Your task to perform on an android device: Go to Yahoo.com Image 0: 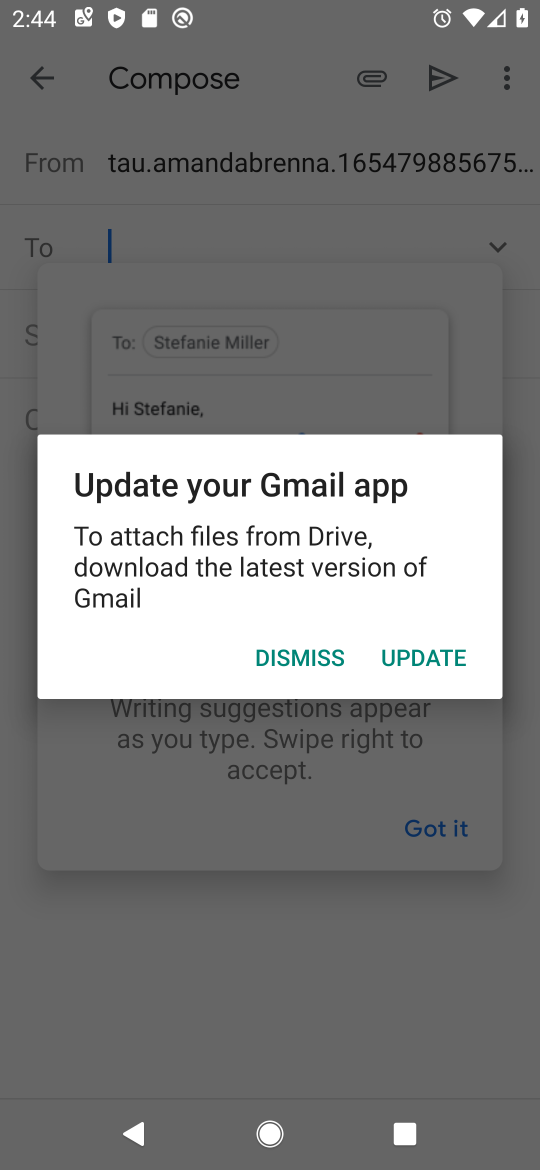
Step 0: press home button
Your task to perform on an android device: Go to Yahoo.com Image 1: 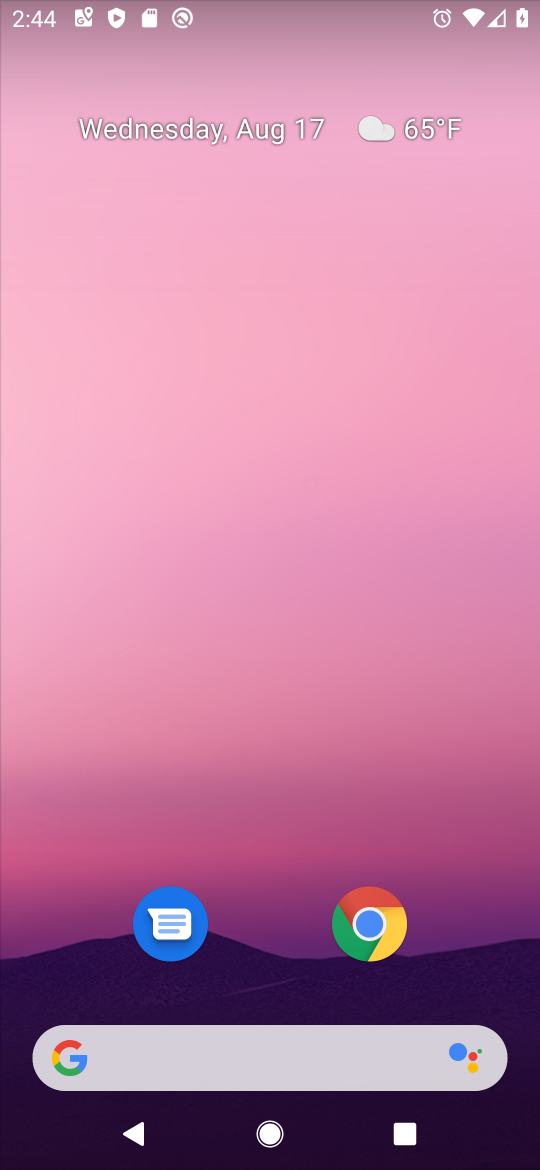
Step 1: click (372, 925)
Your task to perform on an android device: Go to Yahoo.com Image 2: 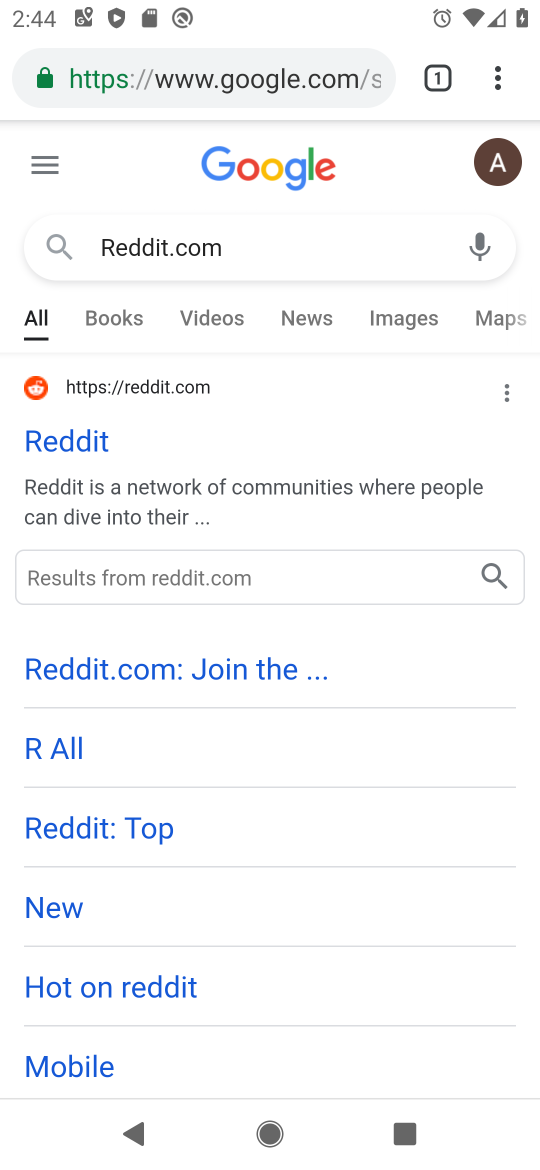
Step 2: click (371, 79)
Your task to perform on an android device: Go to Yahoo.com Image 3: 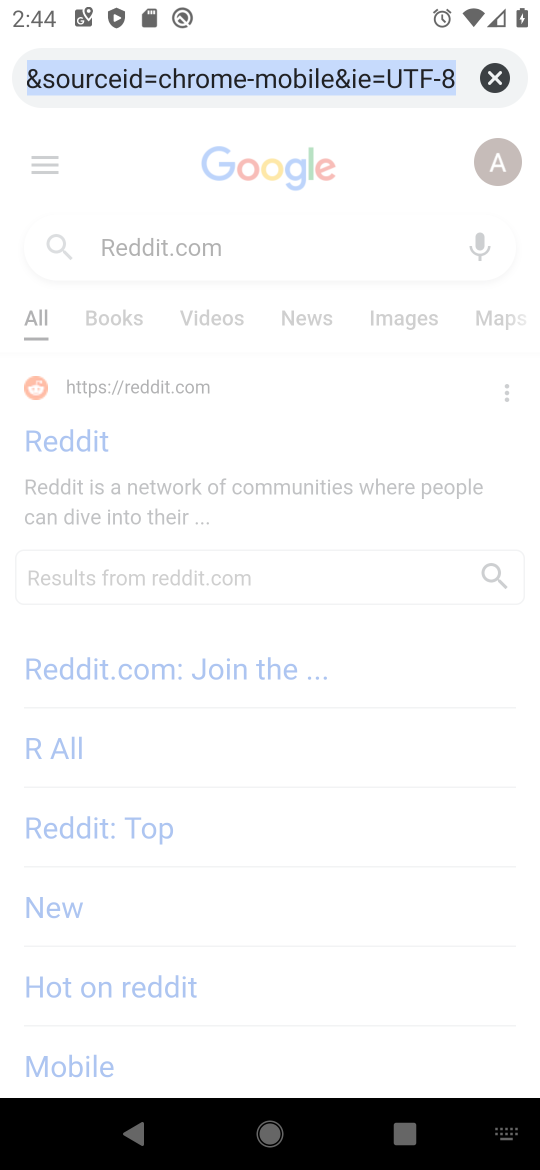
Step 3: type "Yahoo.com"
Your task to perform on an android device: Go to Yahoo.com Image 4: 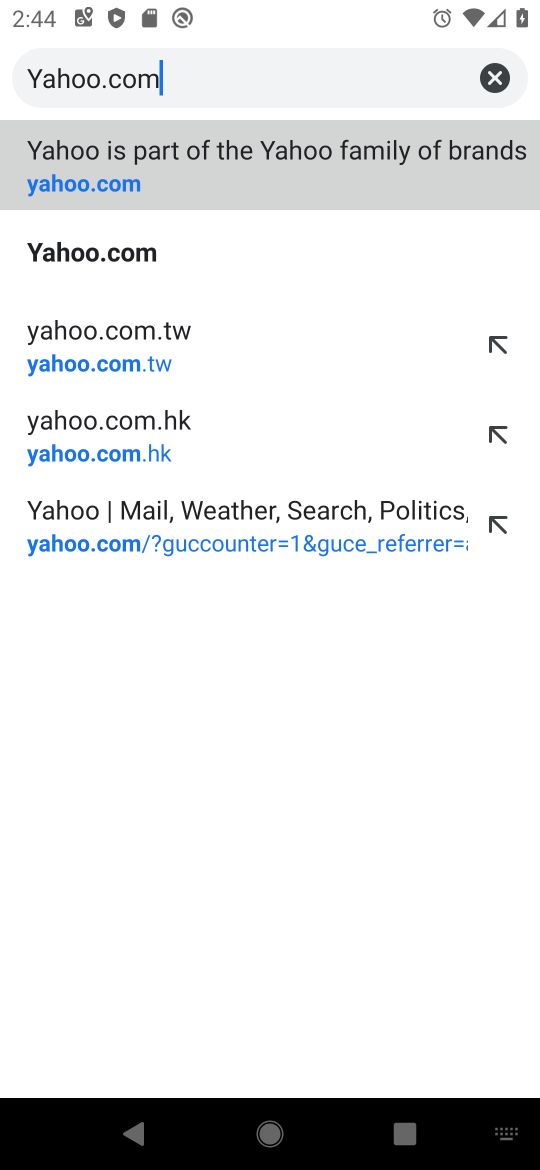
Step 4: click (144, 244)
Your task to perform on an android device: Go to Yahoo.com Image 5: 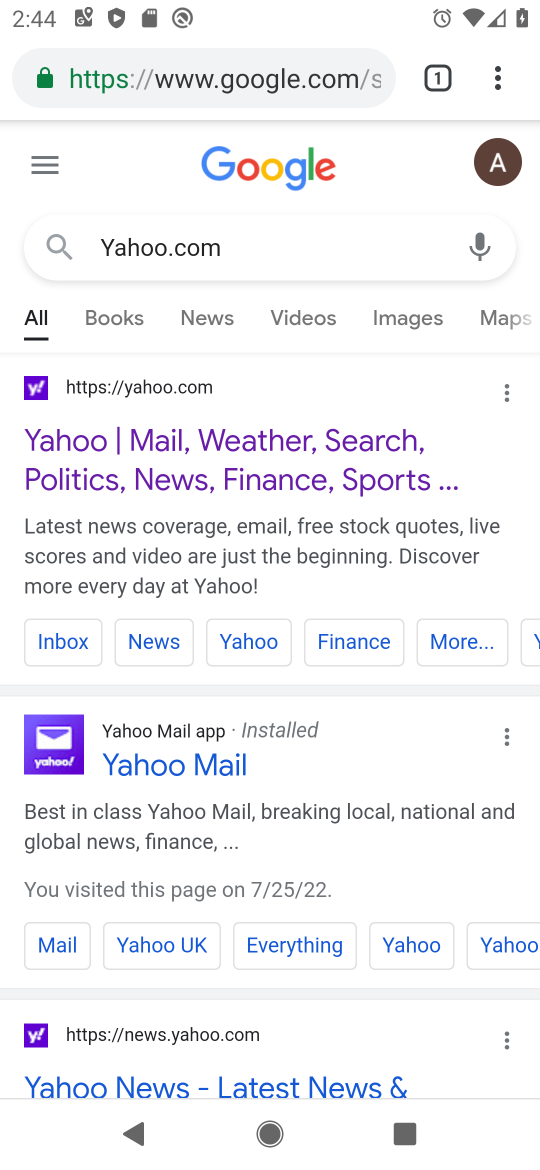
Step 5: click (303, 455)
Your task to perform on an android device: Go to Yahoo.com Image 6: 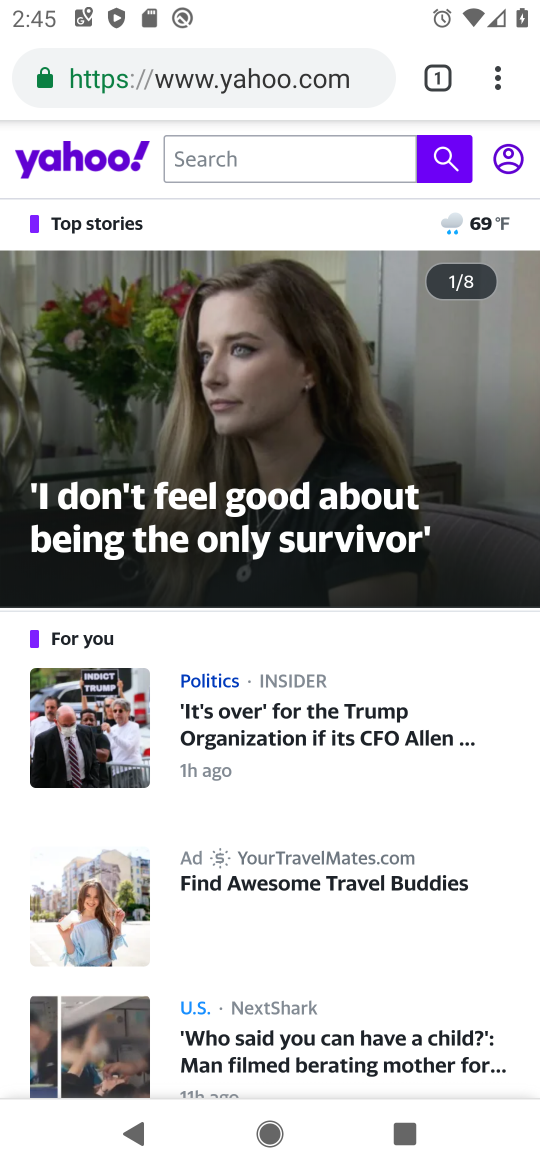
Step 6: task complete